Your task to perform on an android device: Check the weather Image 0: 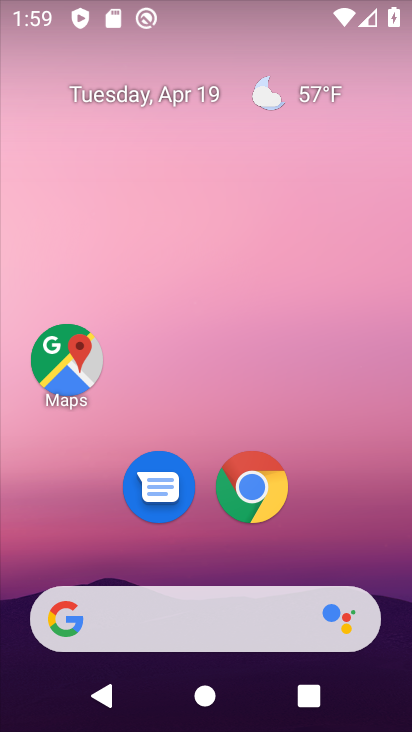
Step 0: click (219, 596)
Your task to perform on an android device: Check the weather Image 1: 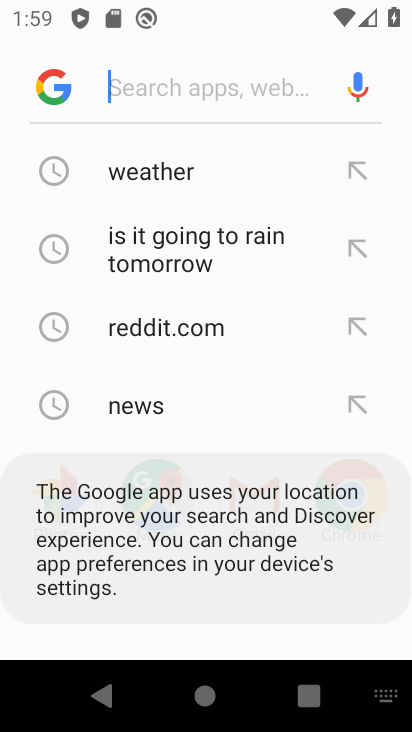
Step 1: click (52, 89)
Your task to perform on an android device: Check the weather Image 2: 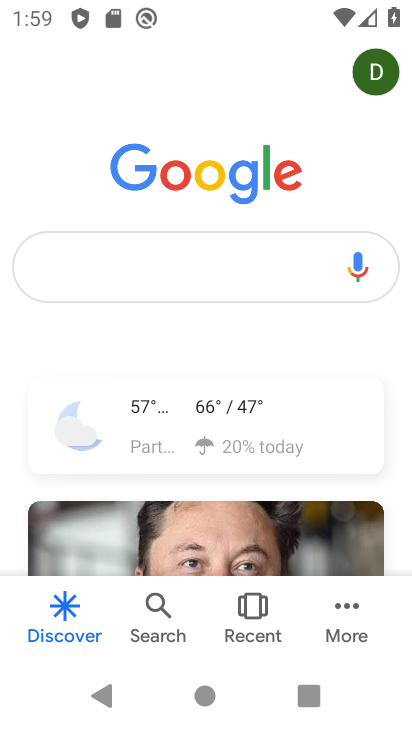
Step 2: click (209, 425)
Your task to perform on an android device: Check the weather Image 3: 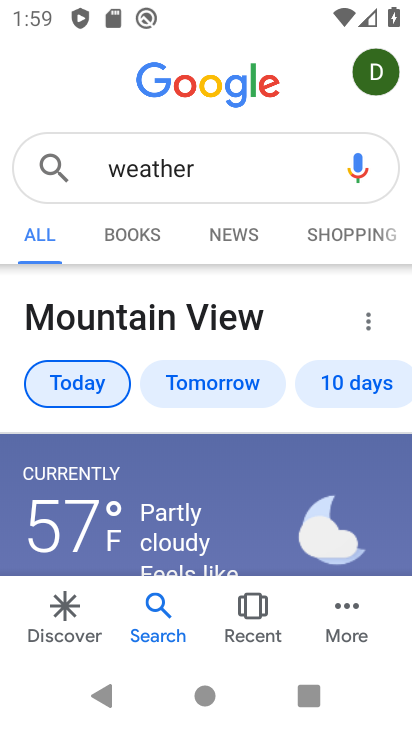
Step 3: task complete